Your task to perform on an android device: turn off airplane mode Image 0: 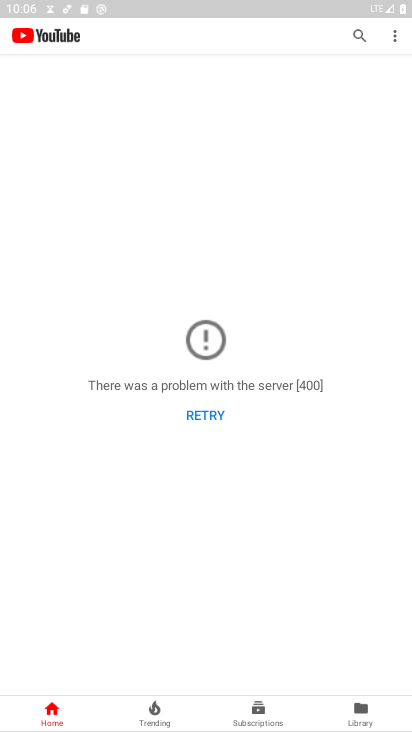
Step 0: press home button
Your task to perform on an android device: turn off airplane mode Image 1: 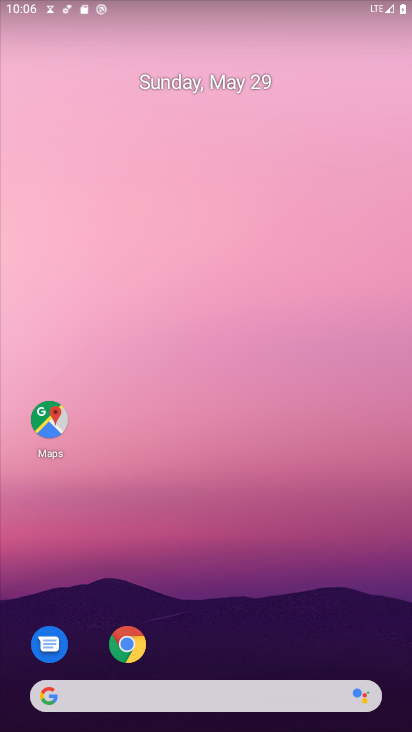
Step 1: task complete